Your task to perform on an android device: Go to Yahoo.com Image 0: 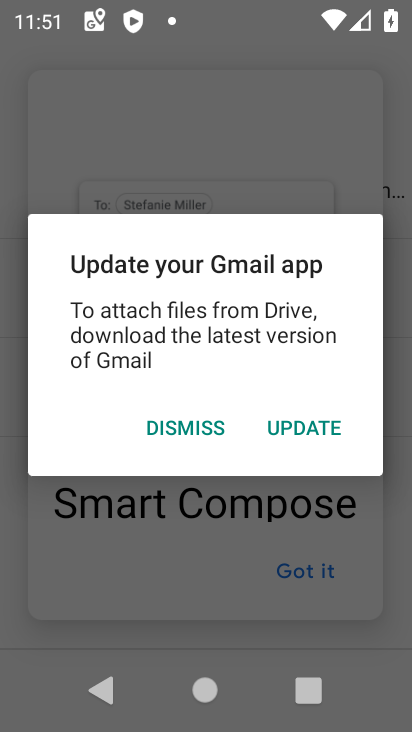
Step 0: press home button
Your task to perform on an android device: Go to Yahoo.com Image 1: 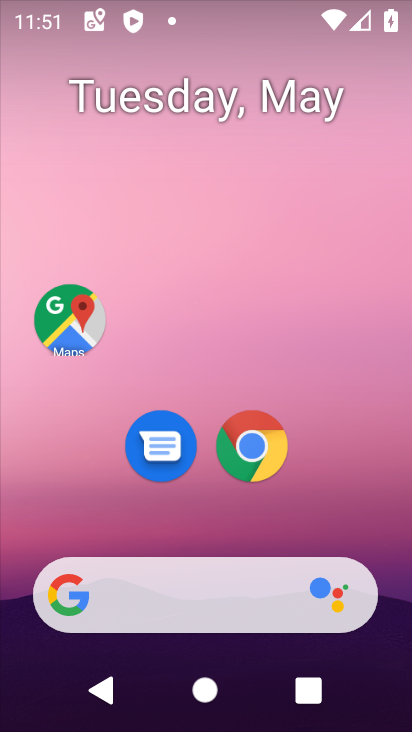
Step 1: click (250, 444)
Your task to perform on an android device: Go to Yahoo.com Image 2: 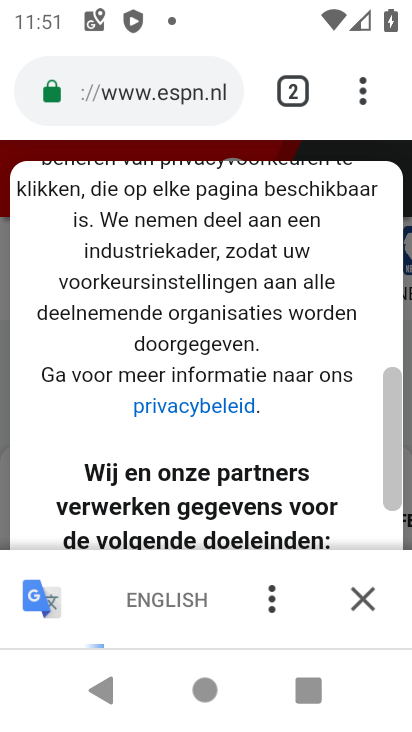
Step 2: click (363, 101)
Your task to perform on an android device: Go to Yahoo.com Image 3: 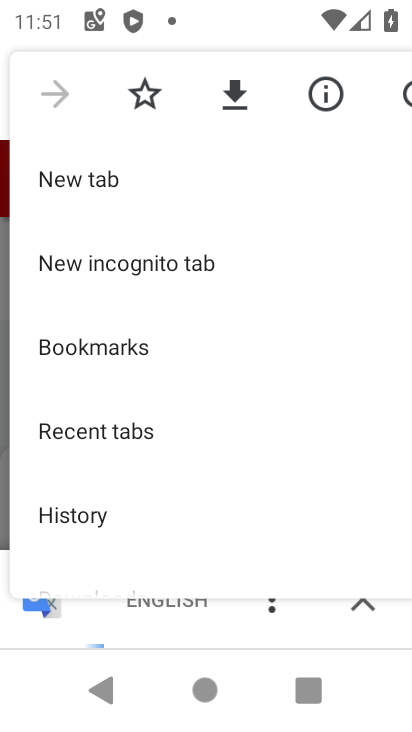
Step 3: click (91, 176)
Your task to perform on an android device: Go to Yahoo.com Image 4: 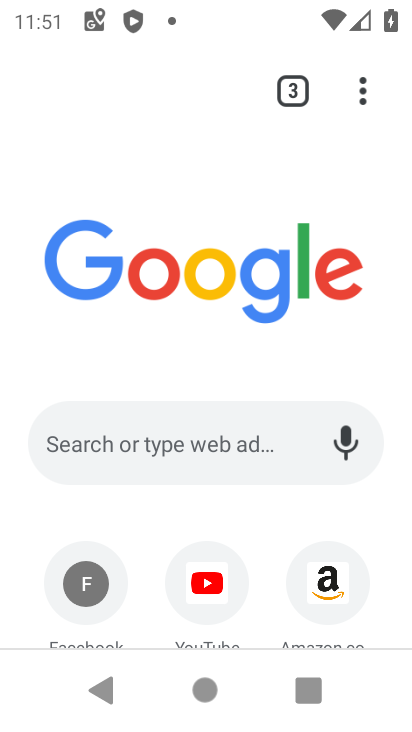
Step 4: drag from (254, 620) to (261, 372)
Your task to perform on an android device: Go to Yahoo.com Image 5: 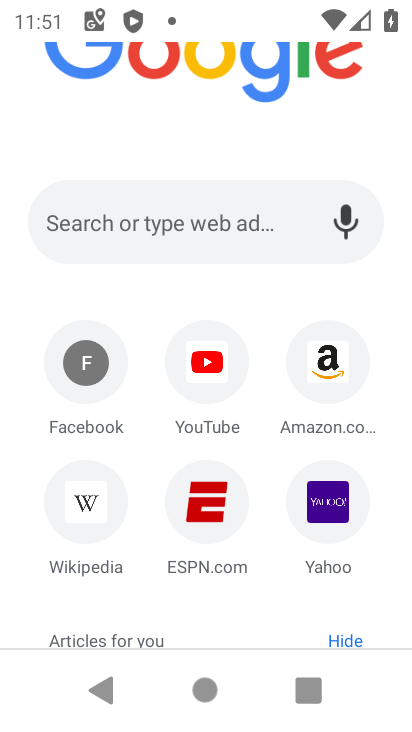
Step 5: click (319, 508)
Your task to perform on an android device: Go to Yahoo.com Image 6: 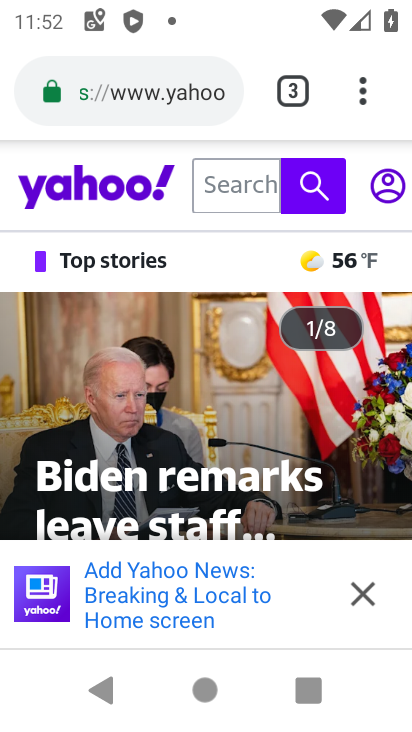
Step 6: task complete